Your task to perform on an android device: Go to eBay Image 0: 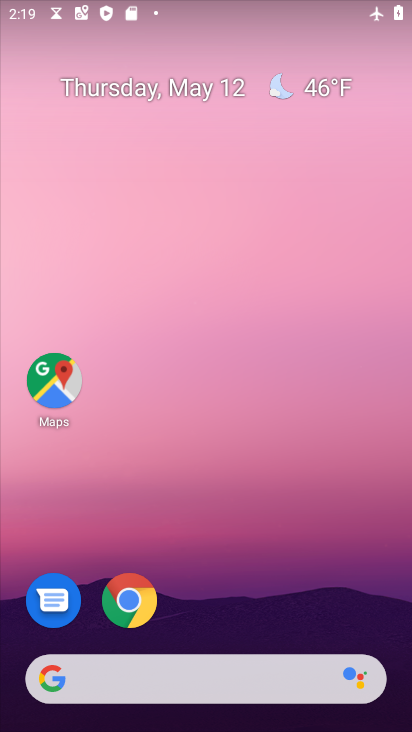
Step 0: drag from (201, 511) to (213, 121)
Your task to perform on an android device: Go to eBay Image 1: 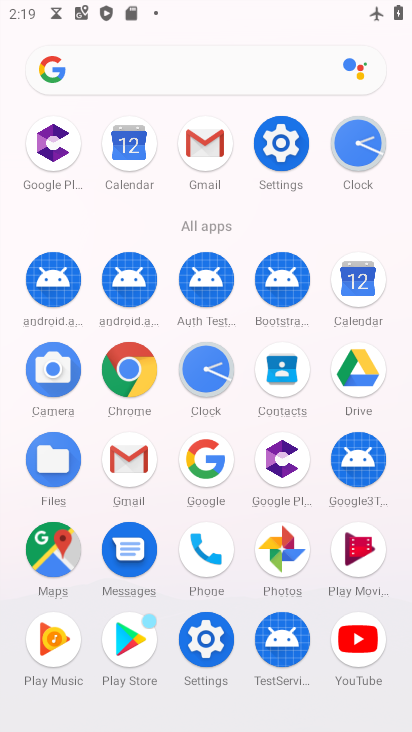
Step 1: click (157, 374)
Your task to perform on an android device: Go to eBay Image 2: 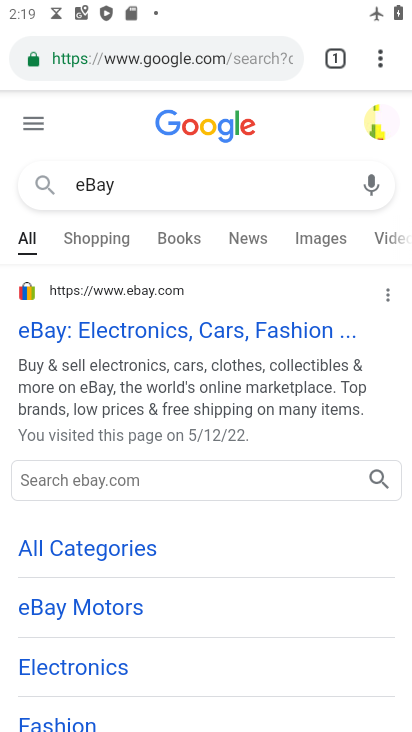
Step 2: task complete